Your task to perform on an android device: Open Google Chrome and click the shortcut for Amazon.com Image 0: 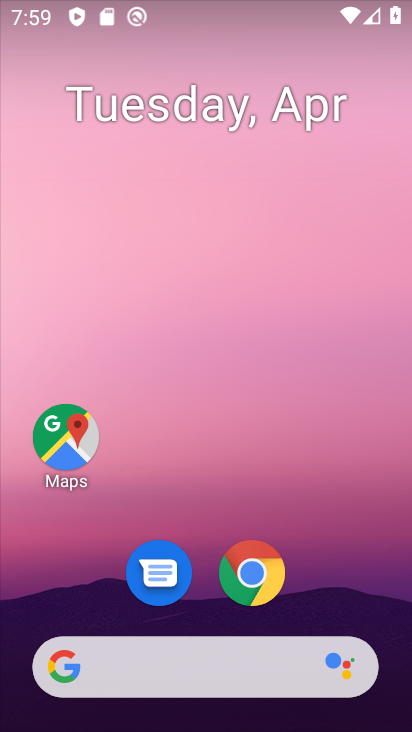
Step 0: click (266, 577)
Your task to perform on an android device: Open Google Chrome and click the shortcut for Amazon.com Image 1: 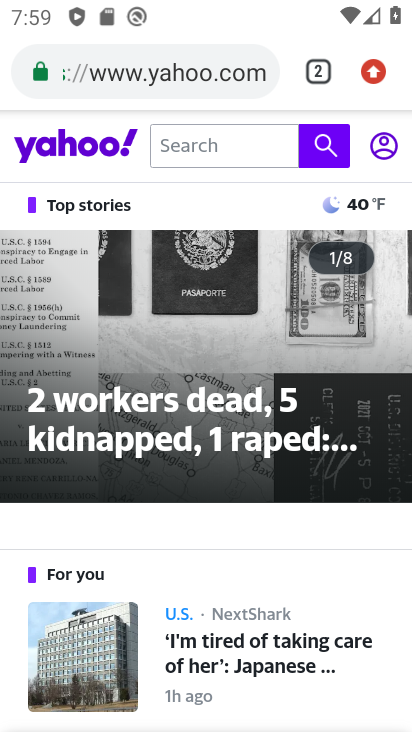
Step 1: click (315, 65)
Your task to perform on an android device: Open Google Chrome and click the shortcut for Amazon.com Image 2: 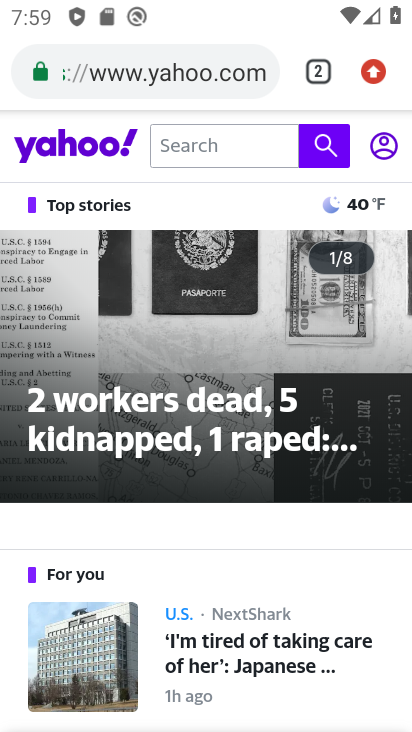
Step 2: click (315, 65)
Your task to perform on an android device: Open Google Chrome and click the shortcut for Amazon.com Image 3: 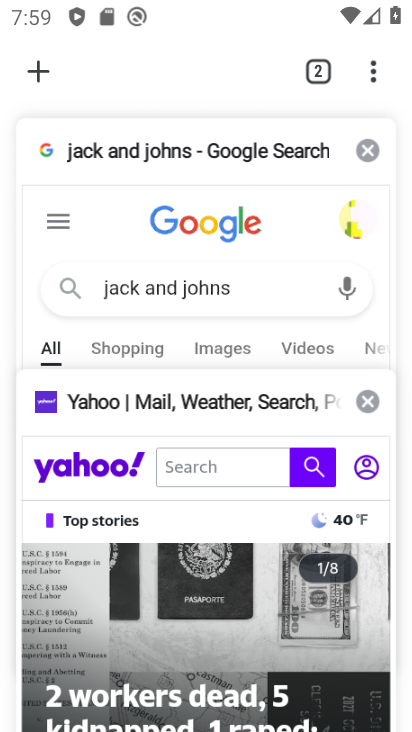
Step 3: click (31, 59)
Your task to perform on an android device: Open Google Chrome and click the shortcut for Amazon.com Image 4: 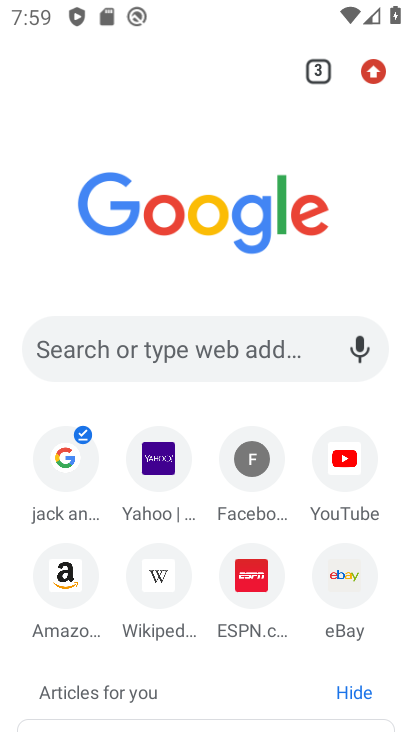
Step 4: click (58, 562)
Your task to perform on an android device: Open Google Chrome and click the shortcut for Amazon.com Image 5: 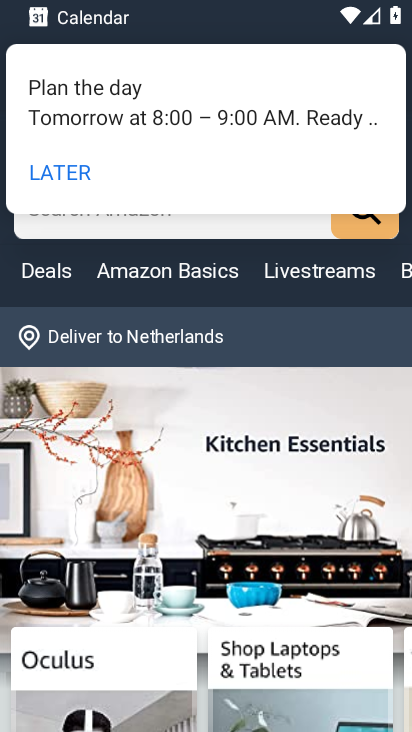
Step 5: task complete